Your task to perform on an android device: turn off javascript in the chrome app Image 0: 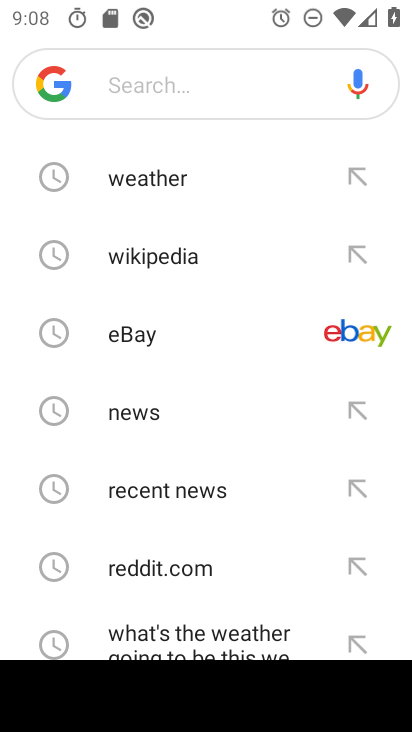
Step 0: press home button
Your task to perform on an android device: turn off javascript in the chrome app Image 1: 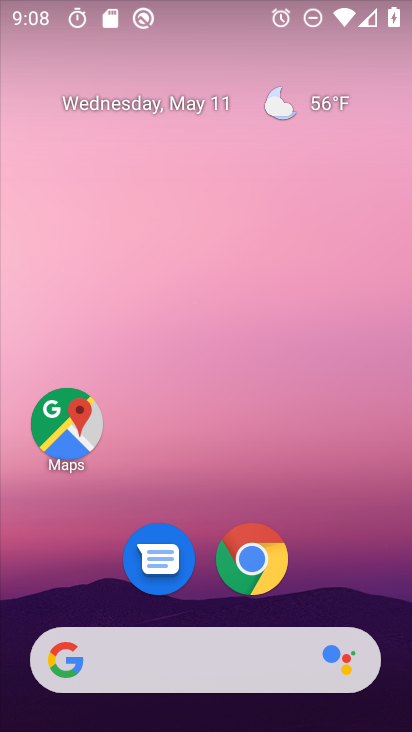
Step 1: click (263, 557)
Your task to perform on an android device: turn off javascript in the chrome app Image 2: 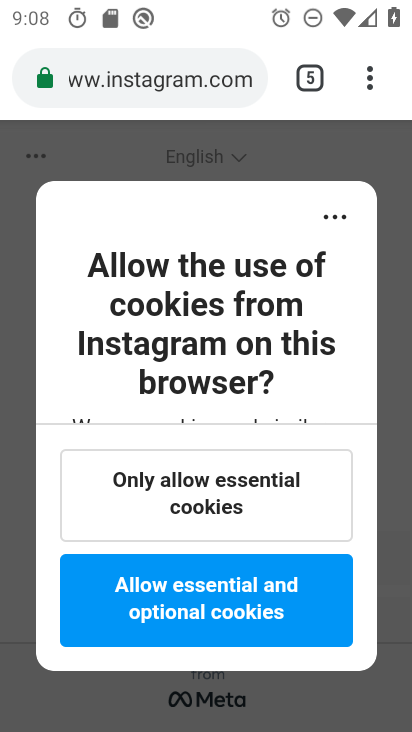
Step 2: click (377, 79)
Your task to perform on an android device: turn off javascript in the chrome app Image 3: 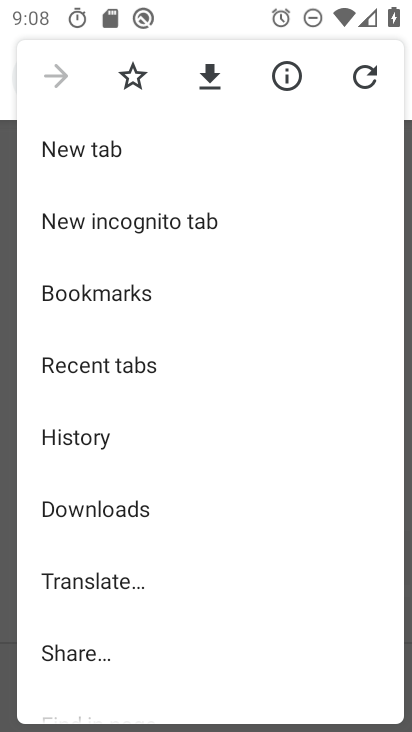
Step 3: drag from (241, 643) to (219, 249)
Your task to perform on an android device: turn off javascript in the chrome app Image 4: 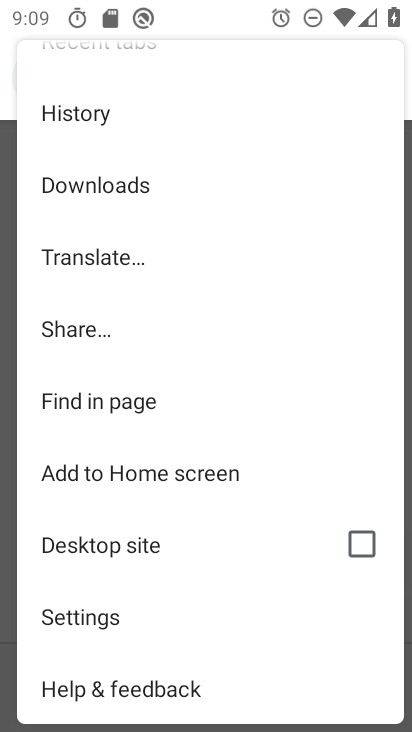
Step 4: click (81, 609)
Your task to perform on an android device: turn off javascript in the chrome app Image 5: 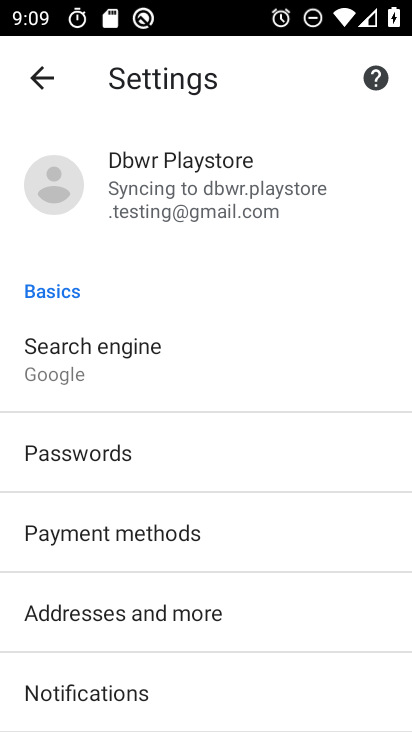
Step 5: drag from (154, 625) to (147, 309)
Your task to perform on an android device: turn off javascript in the chrome app Image 6: 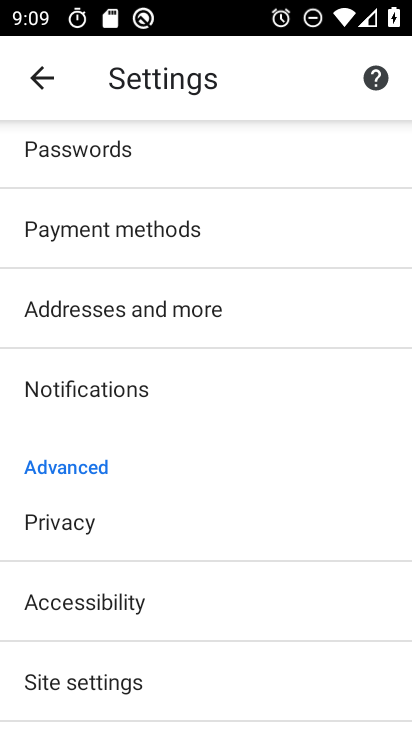
Step 6: click (153, 667)
Your task to perform on an android device: turn off javascript in the chrome app Image 7: 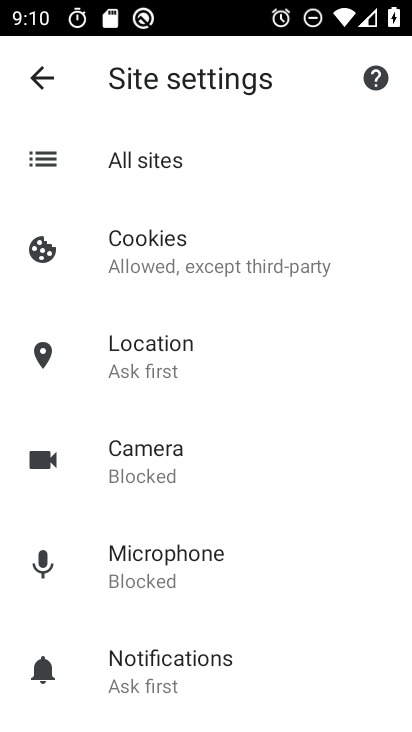
Step 7: drag from (188, 555) to (188, 314)
Your task to perform on an android device: turn off javascript in the chrome app Image 8: 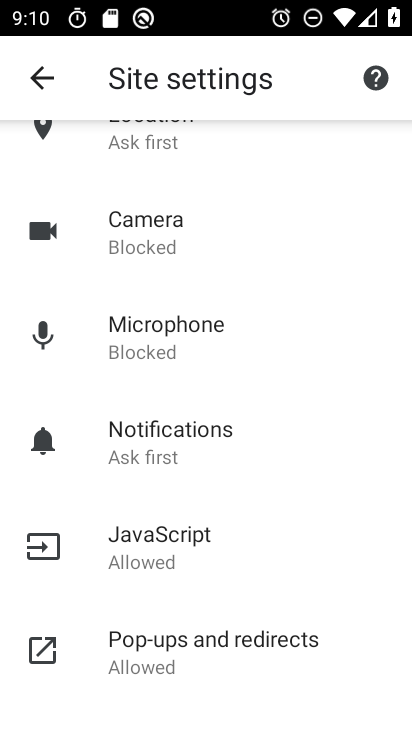
Step 8: click (137, 565)
Your task to perform on an android device: turn off javascript in the chrome app Image 9: 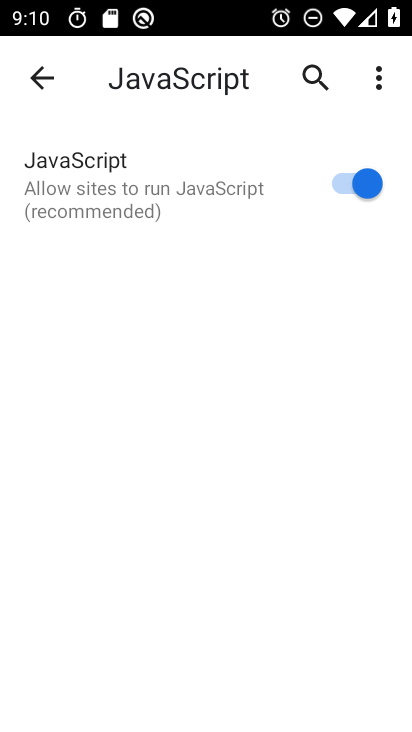
Step 9: click (345, 177)
Your task to perform on an android device: turn off javascript in the chrome app Image 10: 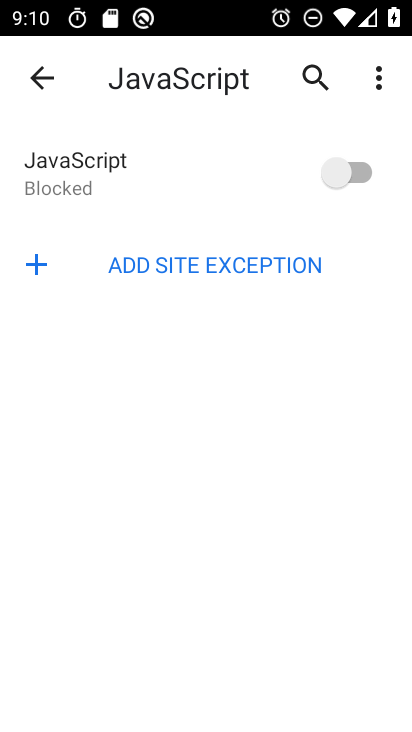
Step 10: task complete